Your task to perform on an android device: Go to wifi settings Image 0: 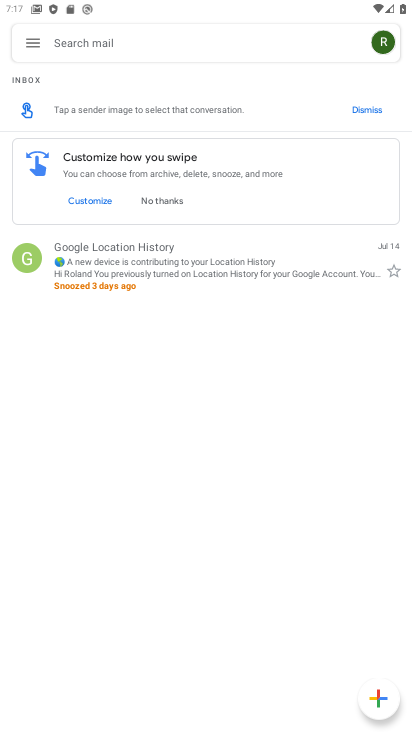
Step 0: press home button
Your task to perform on an android device: Go to wifi settings Image 1: 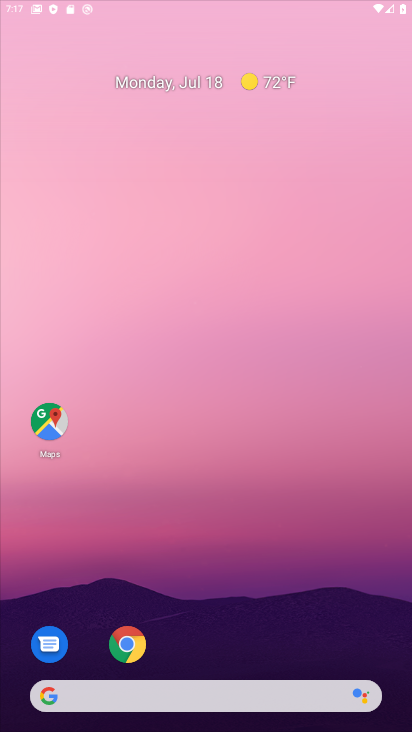
Step 1: drag from (355, 691) to (189, 41)
Your task to perform on an android device: Go to wifi settings Image 2: 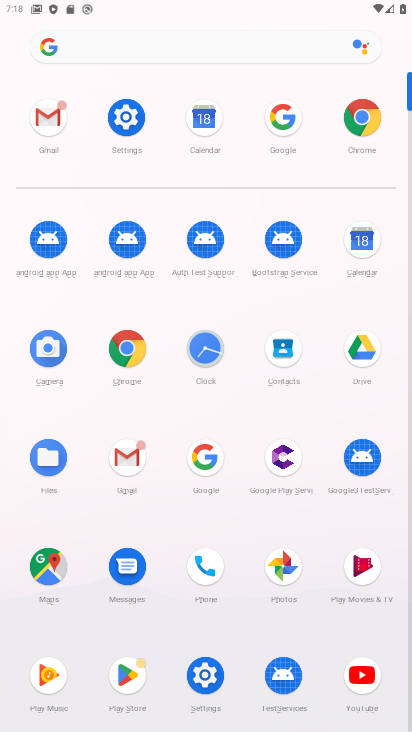
Step 2: click (213, 678)
Your task to perform on an android device: Go to wifi settings Image 3: 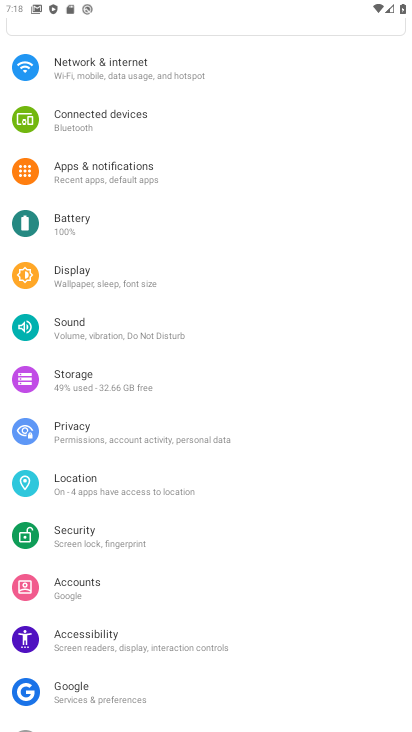
Step 3: drag from (108, 102) to (201, 617)
Your task to perform on an android device: Go to wifi settings Image 4: 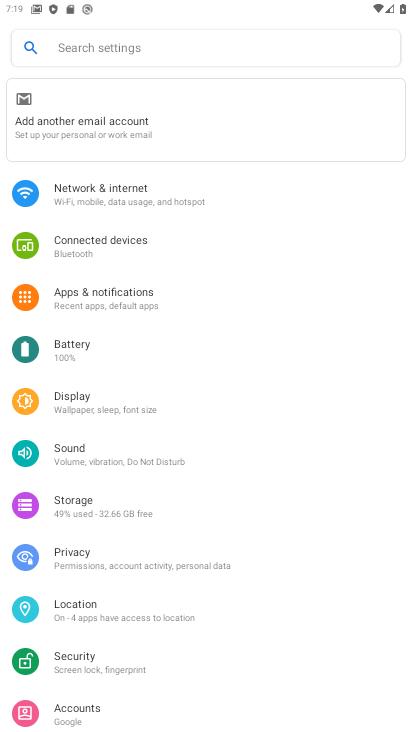
Step 4: click (128, 192)
Your task to perform on an android device: Go to wifi settings Image 5: 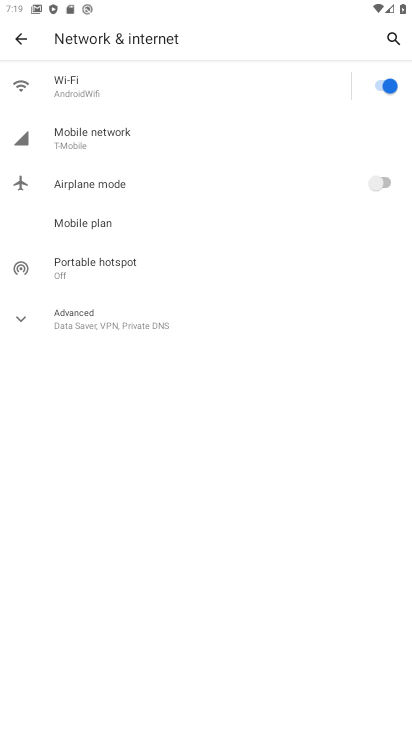
Step 5: click (164, 93)
Your task to perform on an android device: Go to wifi settings Image 6: 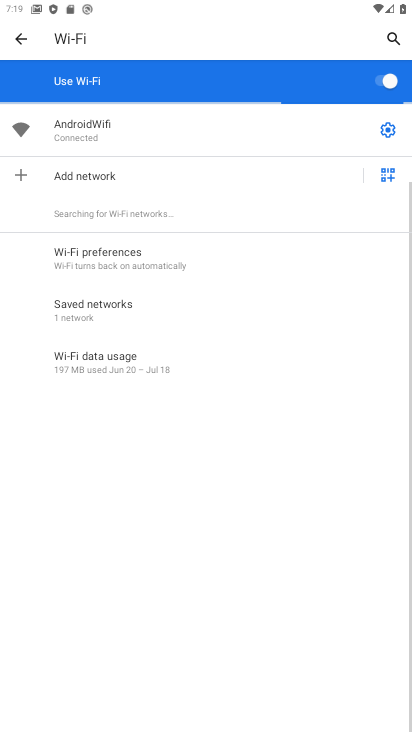
Step 6: task complete